Your task to perform on an android device: Open sound settings Image 0: 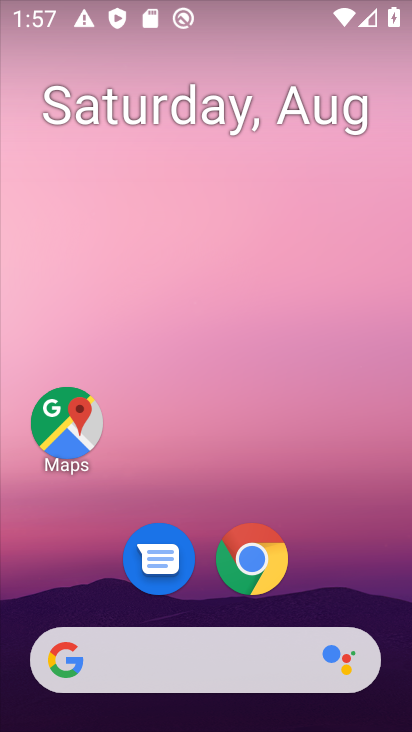
Step 0: drag from (234, 609) to (225, 119)
Your task to perform on an android device: Open sound settings Image 1: 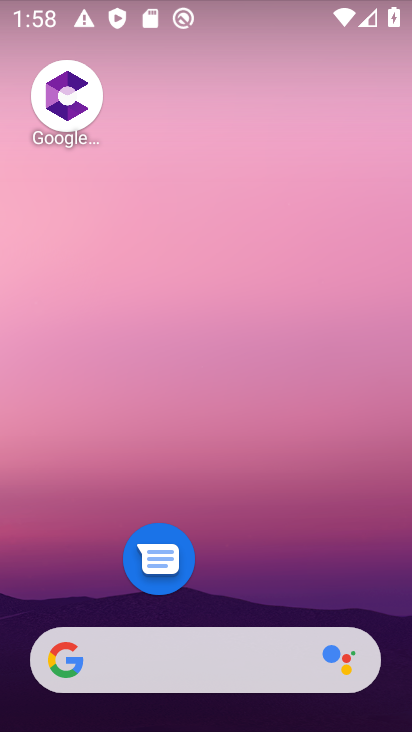
Step 1: drag from (239, 604) to (124, 148)
Your task to perform on an android device: Open sound settings Image 2: 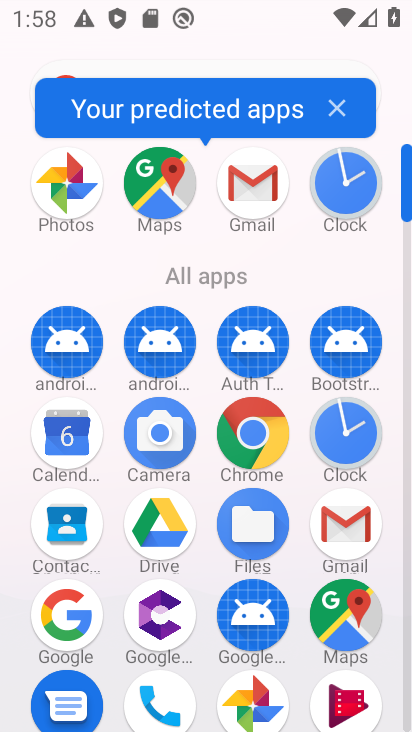
Step 2: drag from (208, 667) to (168, 67)
Your task to perform on an android device: Open sound settings Image 3: 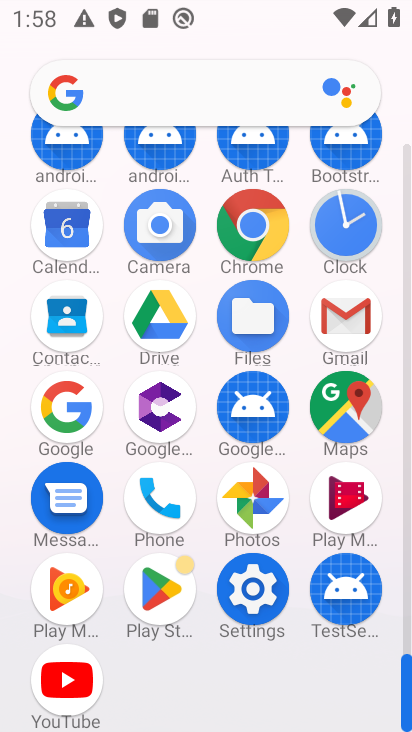
Step 3: click (253, 588)
Your task to perform on an android device: Open sound settings Image 4: 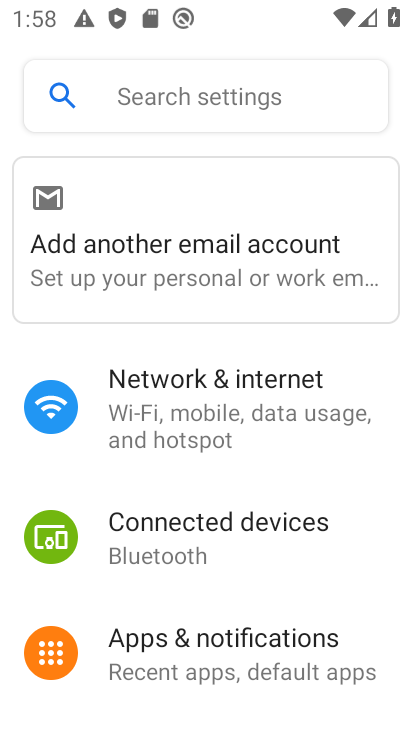
Step 4: drag from (179, 546) to (93, 31)
Your task to perform on an android device: Open sound settings Image 5: 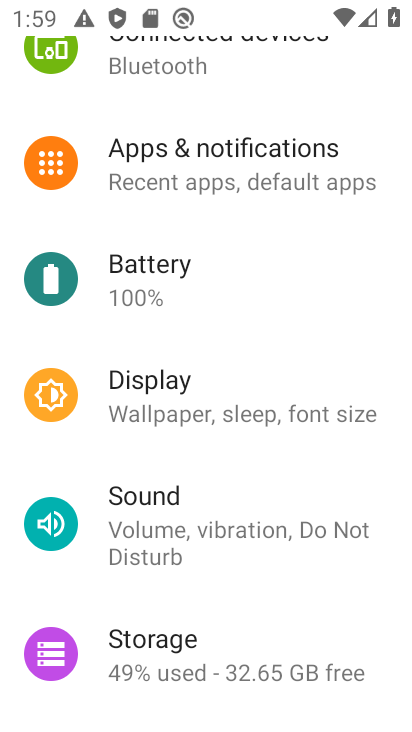
Step 5: click (188, 506)
Your task to perform on an android device: Open sound settings Image 6: 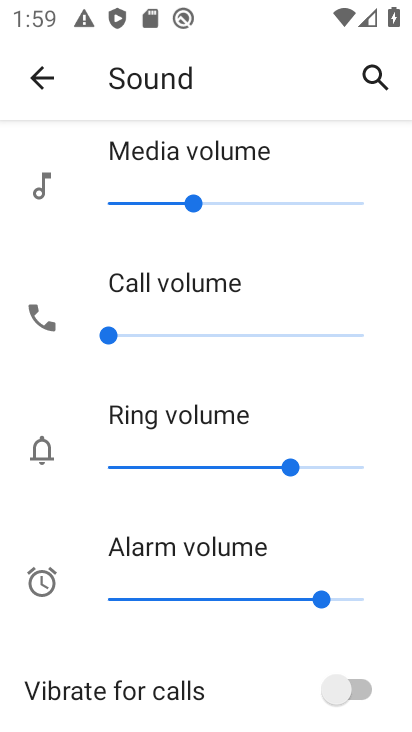
Step 6: task complete